Your task to perform on an android device: turn vacation reply on in the gmail app Image 0: 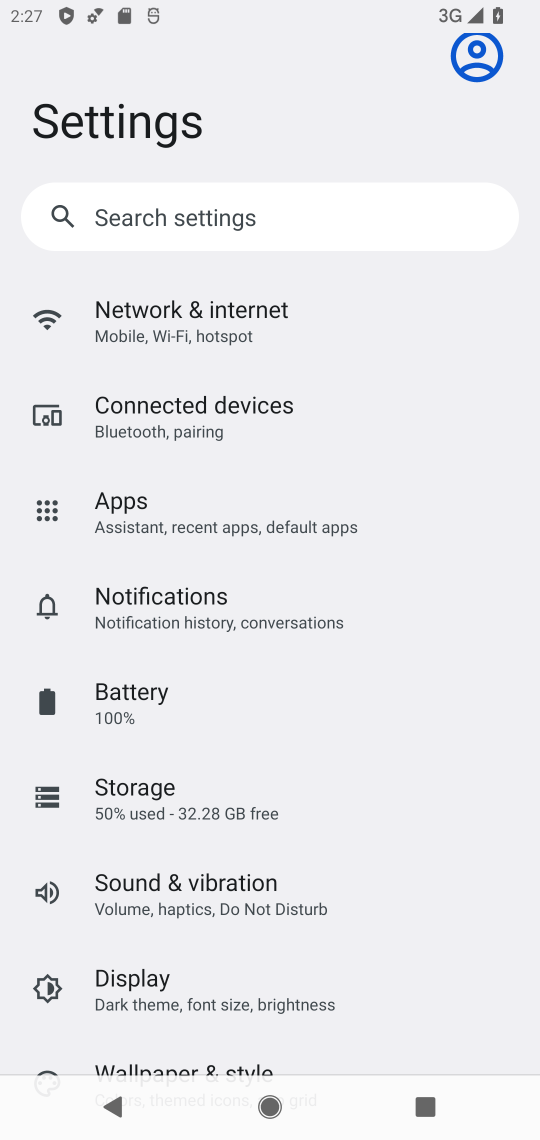
Step 0: press home button
Your task to perform on an android device: turn vacation reply on in the gmail app Image 1: 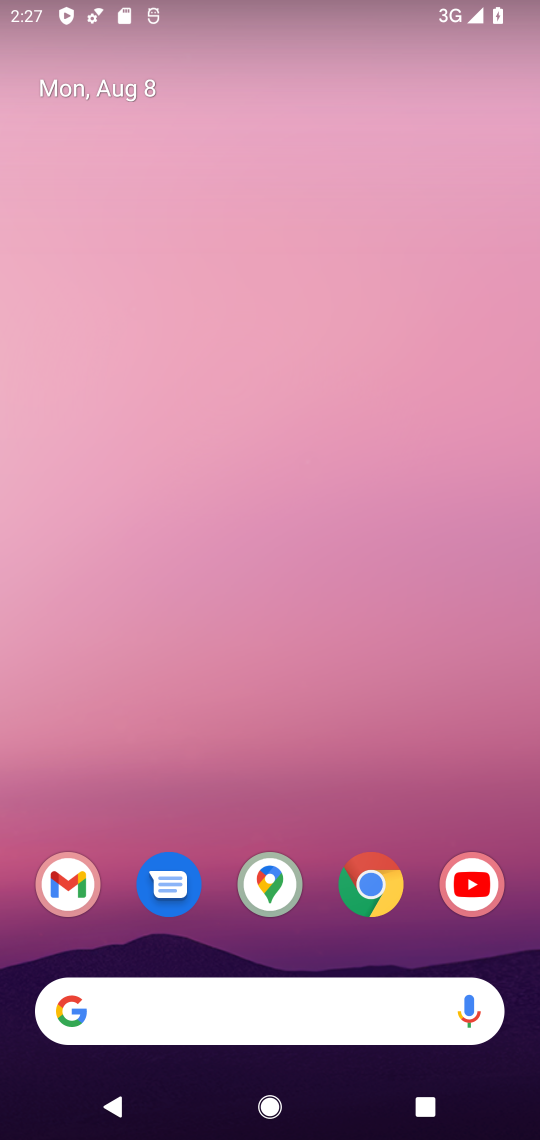
Step 1: click (72, 877)
Your task to perform on an android device: turn vacation reply on in the gmail app Image 2: 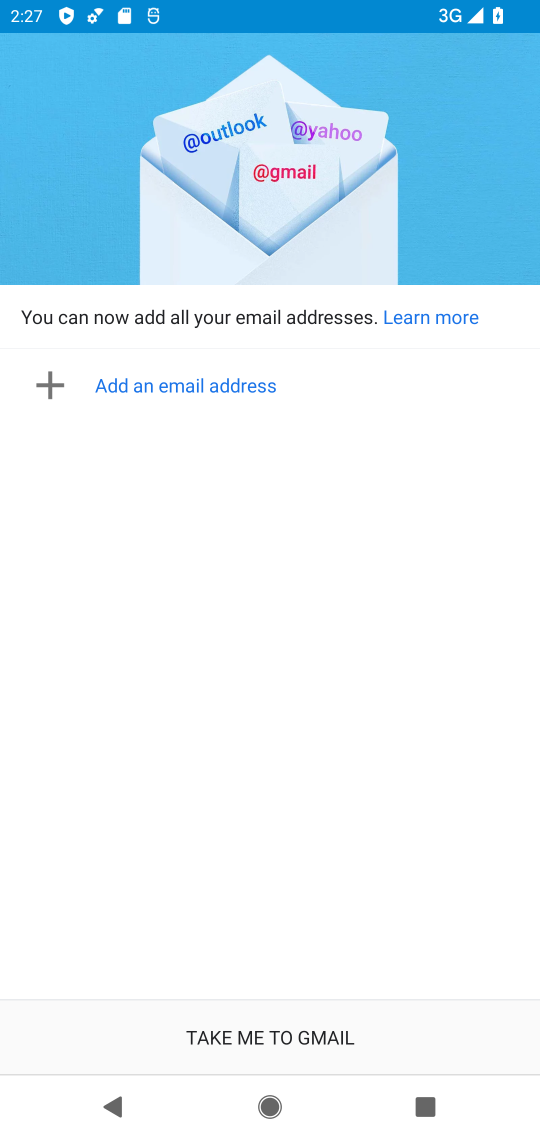
Step 2: click (271, 1031)
Your task to perform on an android device: turn vacation reply on in the gmail app Image 3: 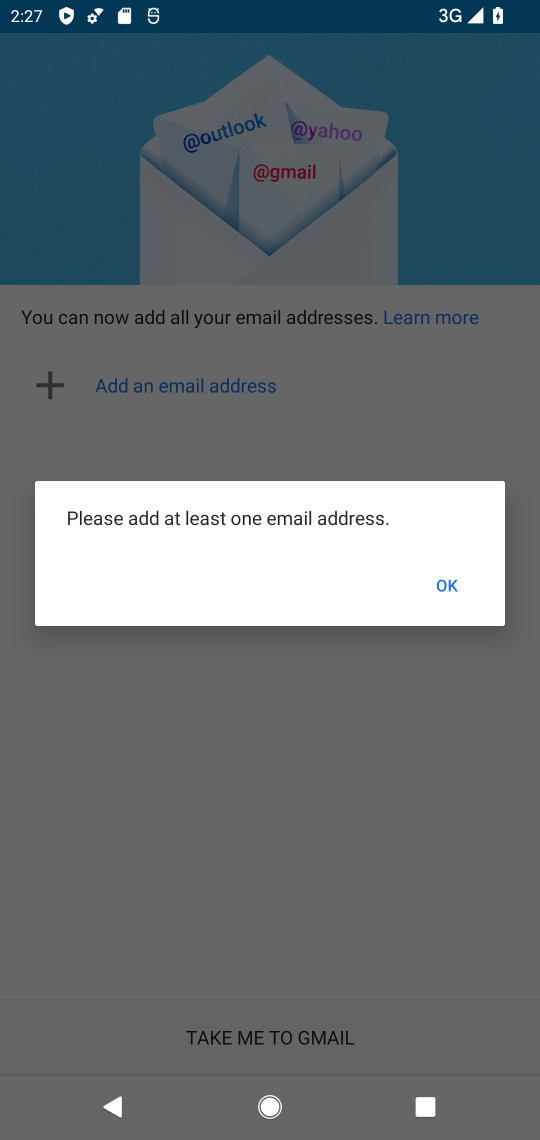
Step 3: click (439, 582)
Your task to perform on an android device: turn vacation reply on in the gmail app Image 4: 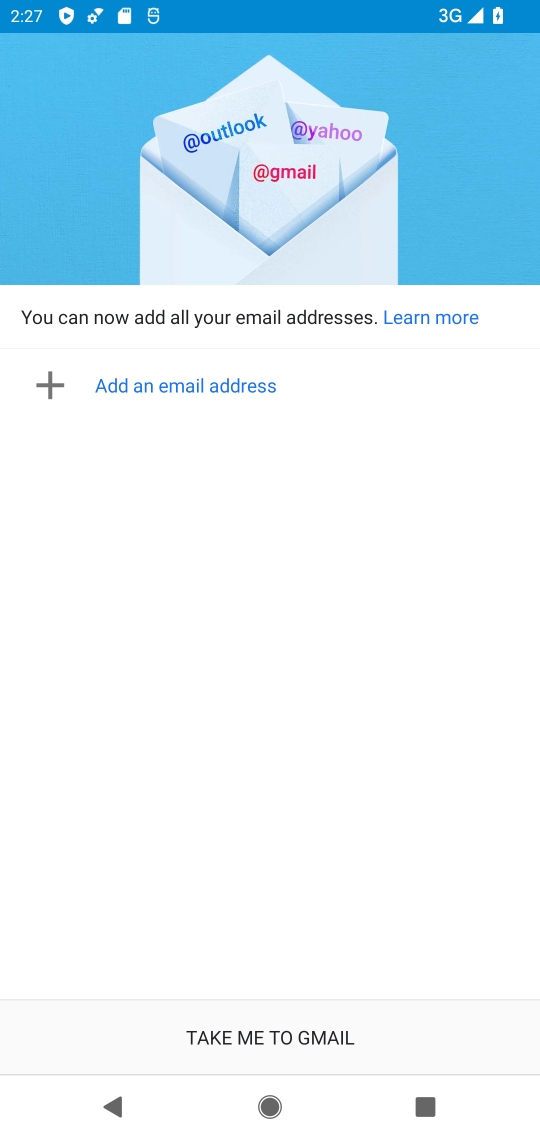
Step 4: task complete